Your task to perform on an android device: Set the phone to "Do not disturb". Image 0: 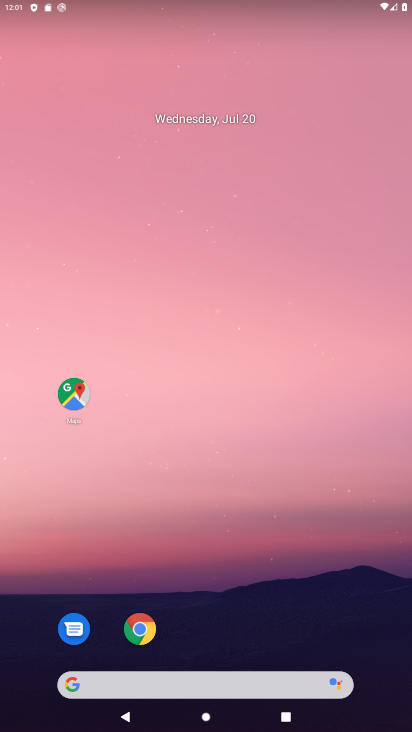
Step 0: drag from (209, 602) to (187, 58)
Your task to perform on an android device: Set the phone to "Do not disturb". Image 1: 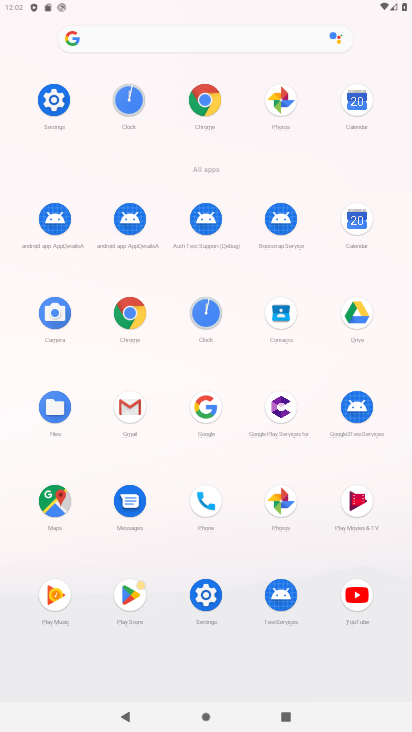
Step 1: click (197, 602)
Your task to perform on an android device: Set the phone to "Do not disturb". Image 2: 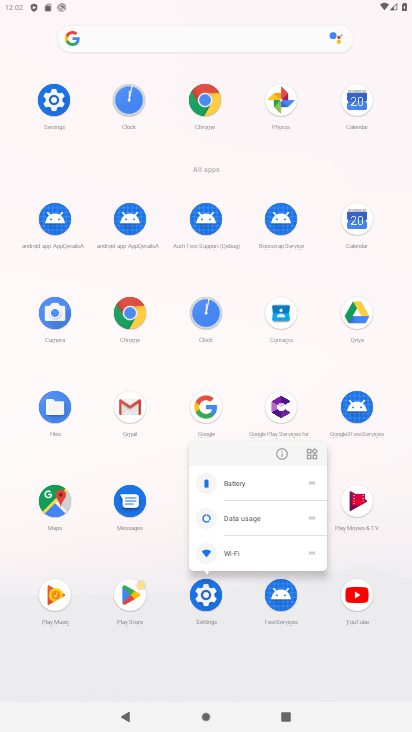
Step 2: click (281, 448)
Your task to perform on an android device: Set the phone to "Do not disturb". Image 3: 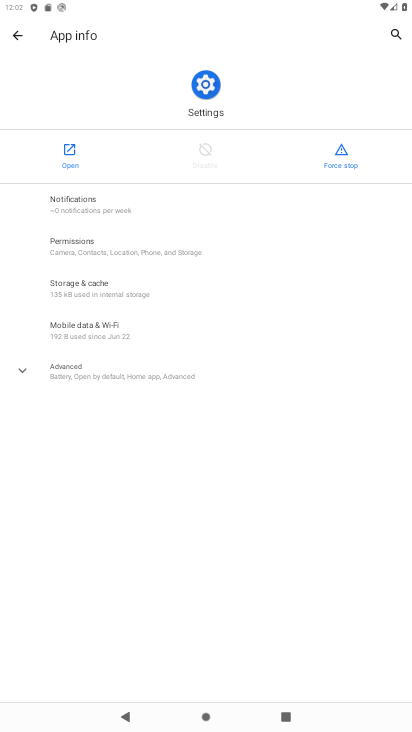
Step 3: click (68, 145)
Your task to perform on an android device: Set the phone to "Do not disturb". Image 4: 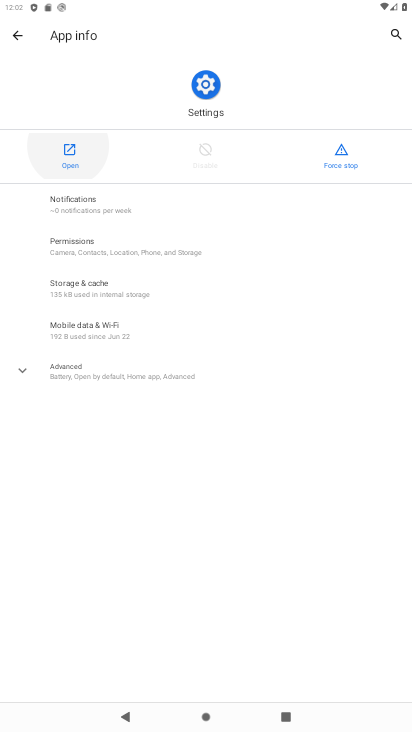
Step 4: click (68, 145)
Your task to perform on an android device: Set the phone to "Do not disturb". Image 5: 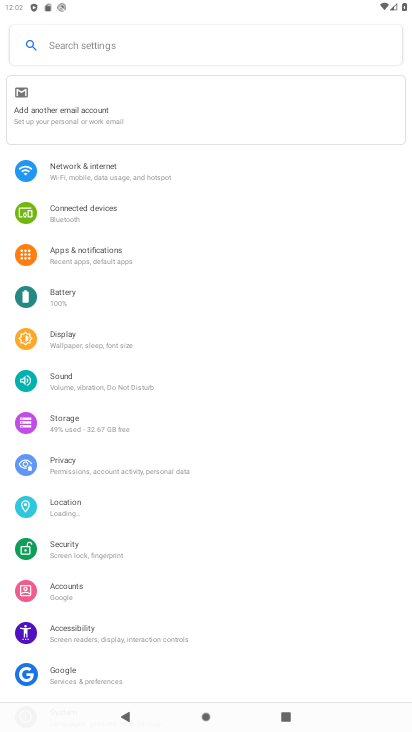
Step 5: drag from (183, 644) to (196, 190)
Your task to perform on an android device: Set the phone to "Do not disturb". Image 6: 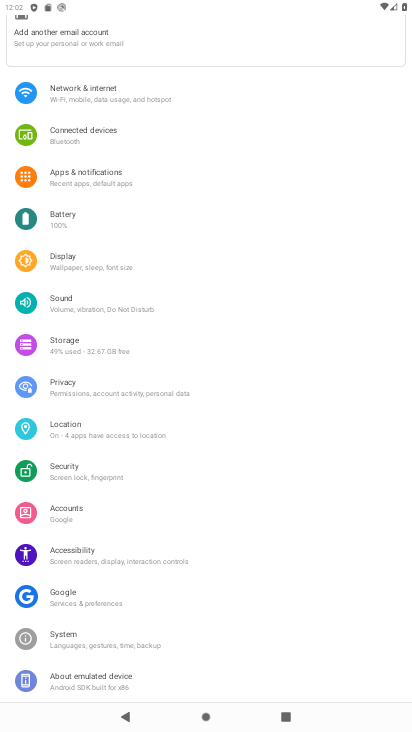
Step 6: click (115, 182)
Your task to perform on an android device: Set the phone to "Do not disturb". Image 7: 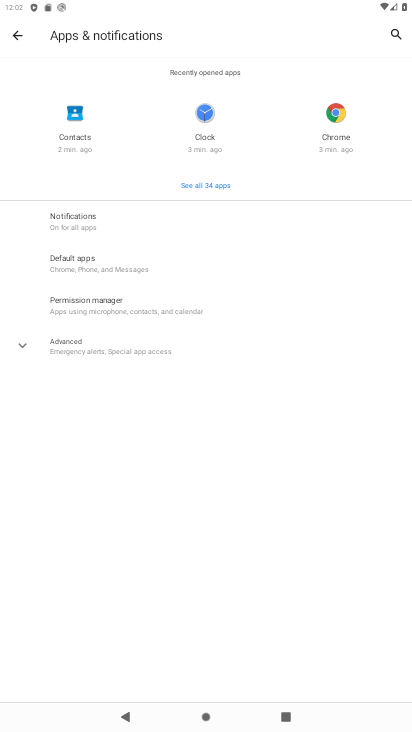
Step 7: click (84, 213)
Your task to perform on an android device: Set the phone to "Do not disturb". Image 8: 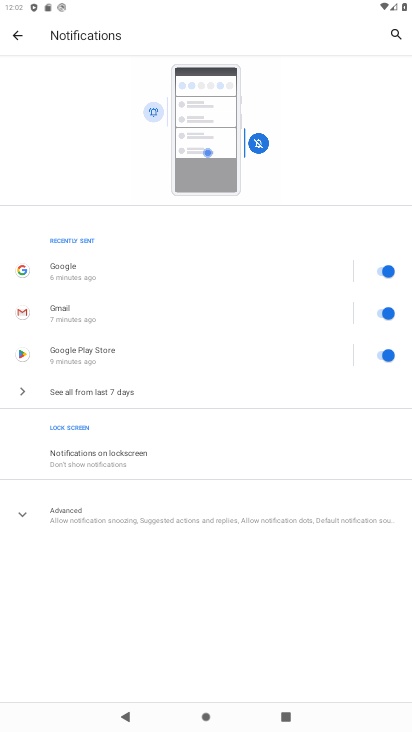
Step 8: drag from (245, 454) to (241, 168)
Your task to perform on an android device: Set the phone to "Do not disturb". Image 9: 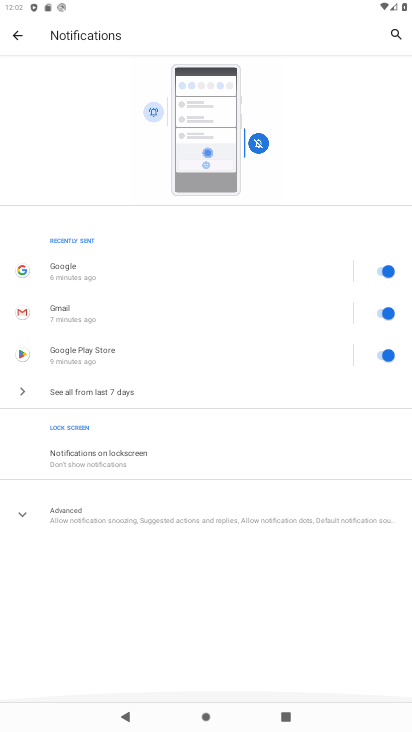
Step 9: click (67, 512)
Your task to perform on an android device: Set the phone to "Do not disturb". Image 10: 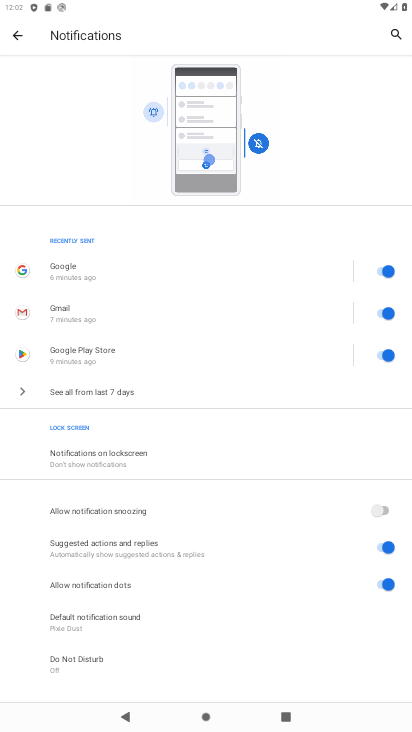
Step 10: drag from (224, 247) to (292, 68)
Your task to perform on an android device: Set the phone to "Do not disturb". Image 11: 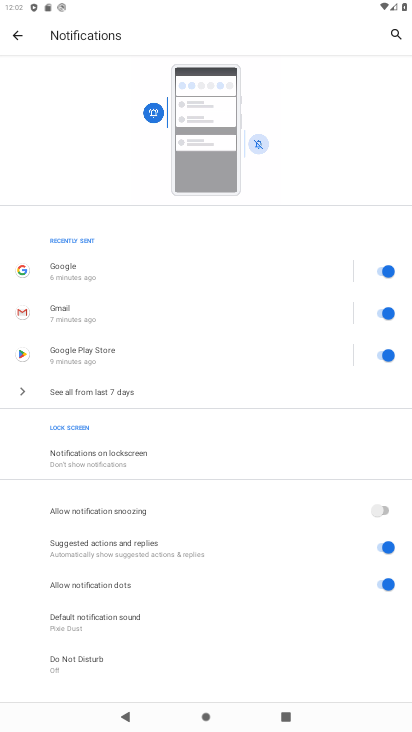
Step 11: click (104, 658)
Your task to perform on an android device: Set the phone to "Do not disturb". Image 12: 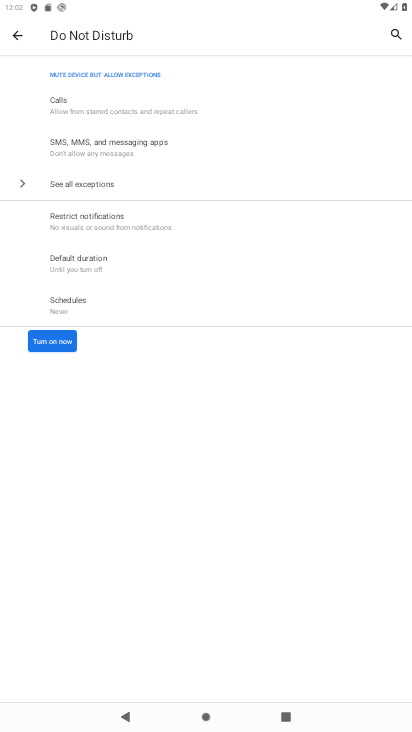
Step 12: click (48, 344)
Your task to perform on an android device: Set the phone to "Do not disturb". Image 13: 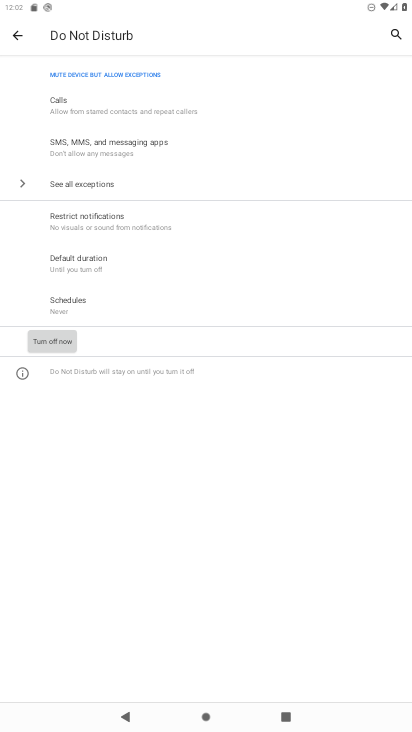
Step 13: task complete